Your task to perform on an android device: change notification settings in the gmail app Image 0: 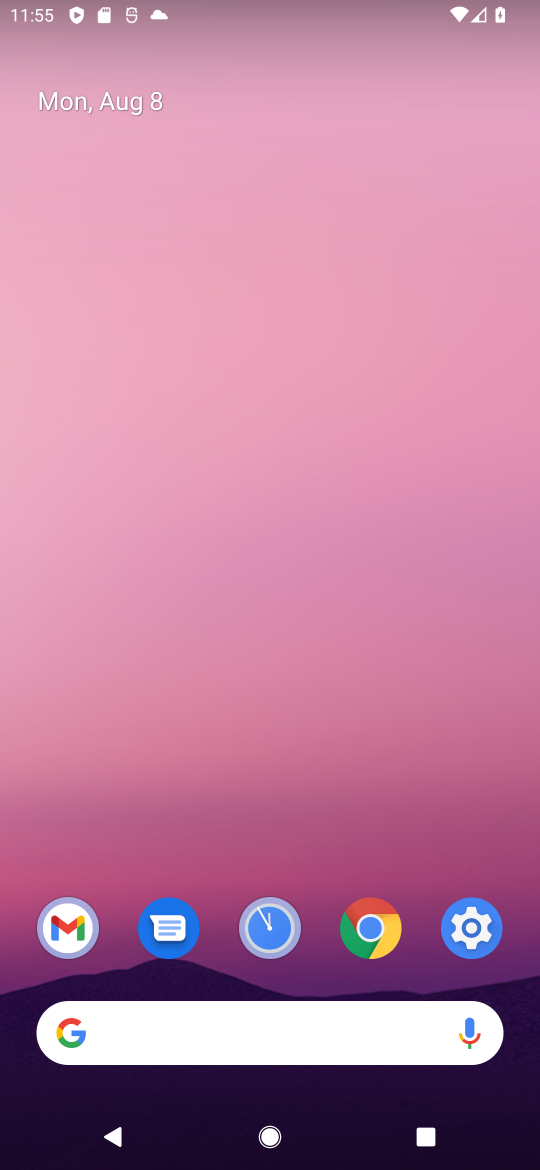
Step 0: click (69, 953)
Your task to perform on an android device: change notification settings in the gmail app Image 1: 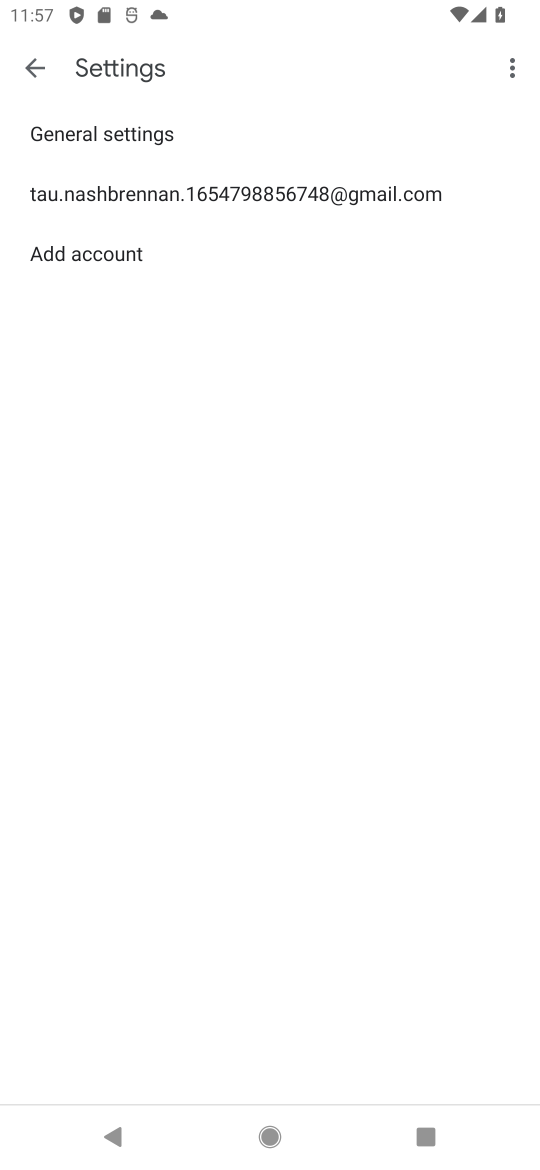
Step 1: click (285, 208)
Your task to perform on an android device: change notification settings in the gmail app Image 2: 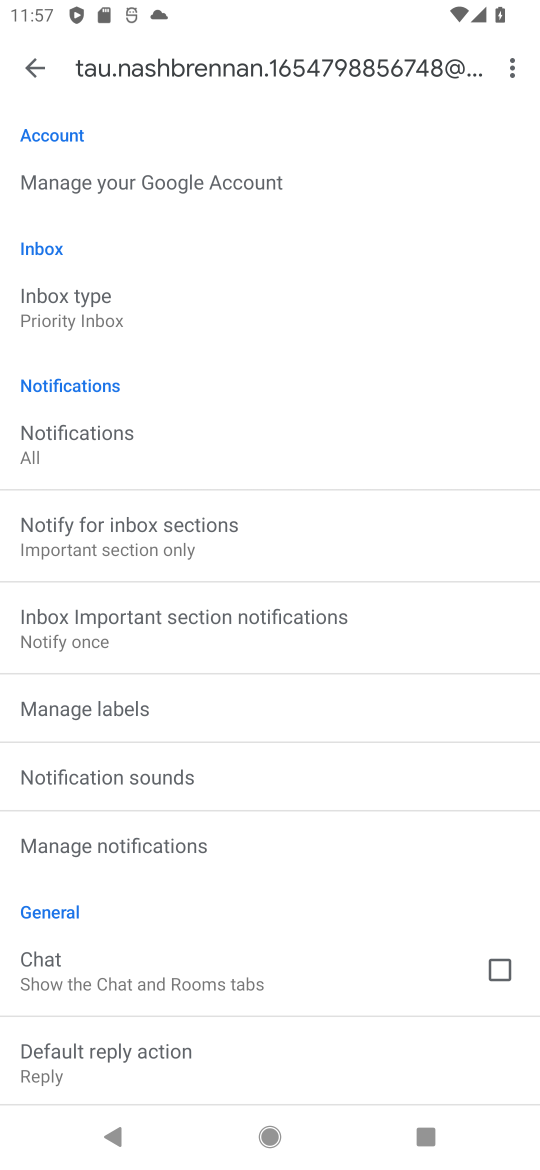
Step 2: click (125, 435)
Your task to perform on an android device: change notification settings in the gmail app Image 3: 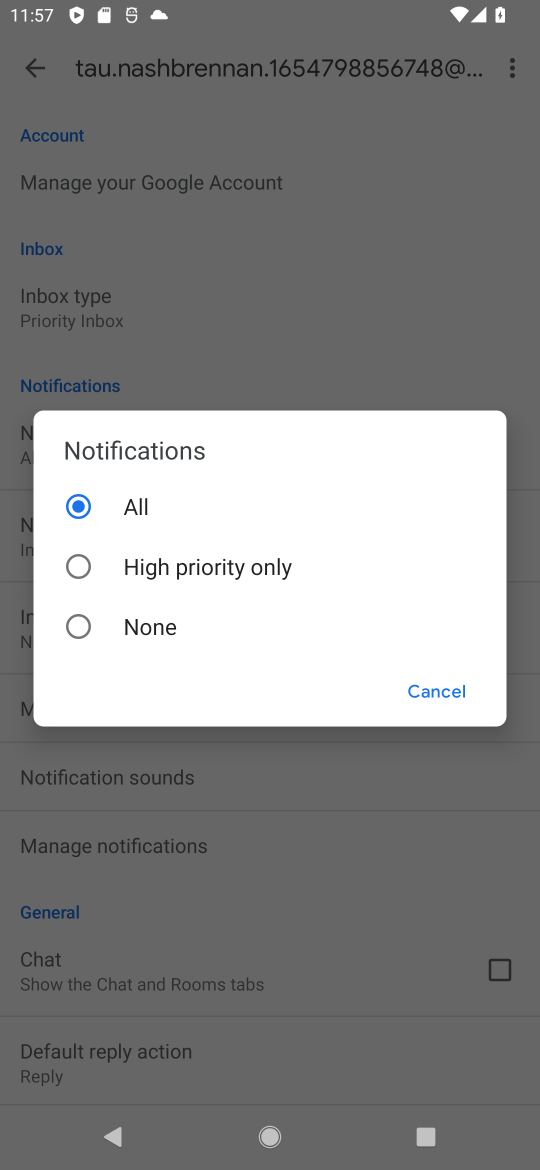
Step 3: task complete